Your task to perform on an android device: move an email to a new category in the gmail app Image 0: 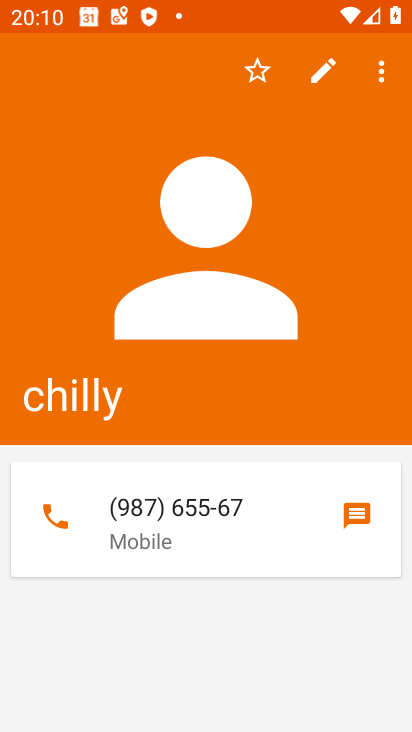
Step 0: press home button
Your task to perform on an android device: move an email to a new category in the gmail app Image 1: 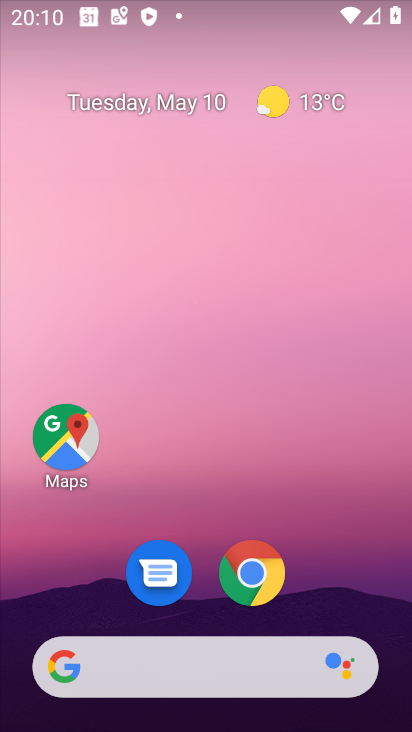
Step 1: drag from (360, 628) to (342, 6)
Your task to perform on an android device: move an email to a new category in the gmail app Image 2: 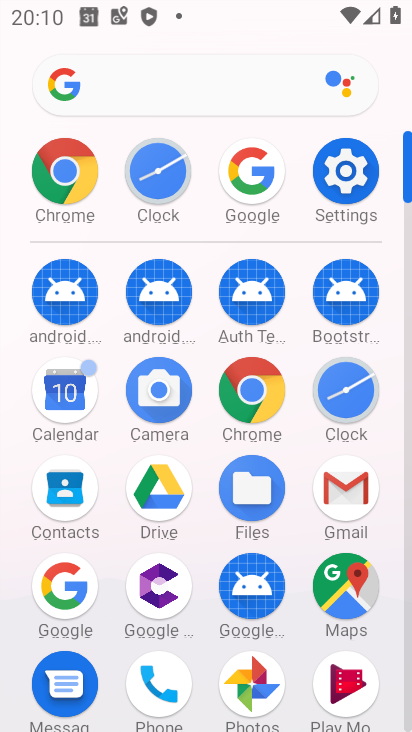
Step 2: click (337, 486)
Your task to perform on an android device: move an email to a new category in the gmail app Image 3: 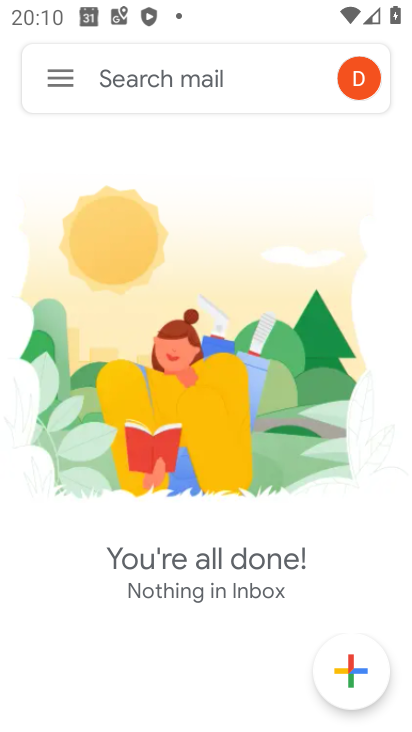
Step 3: click (61, 66)
Your task to perform on an android device: move an email to a new category in the gmail app Image 4: 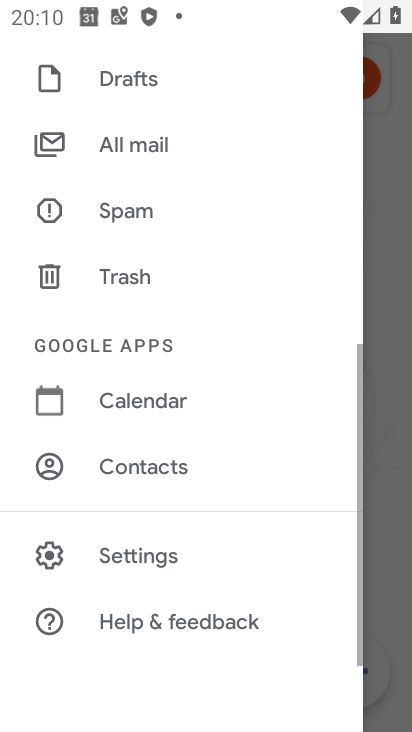
Step 4: click (101, 163)
Your task to perform on an android device: move an email to a new category in the gmail app Image 5: 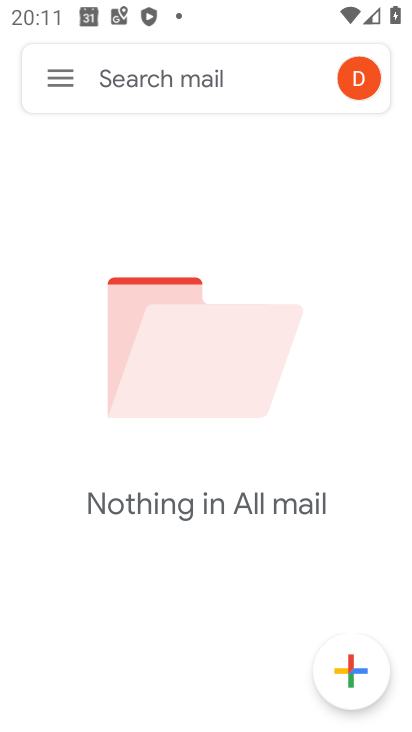
Step 5: task complete